Your task to perform on an android device: Find coffee shops on Maps Image 0: 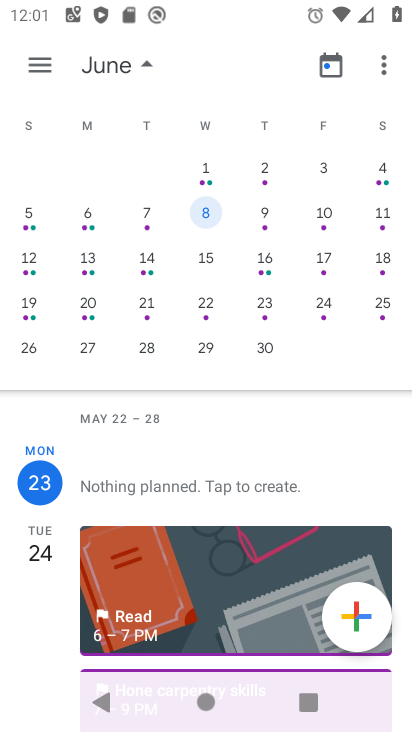
Step 0: press home button
Your task to perform on an android device: Find coffee shops on Maps Image 1: 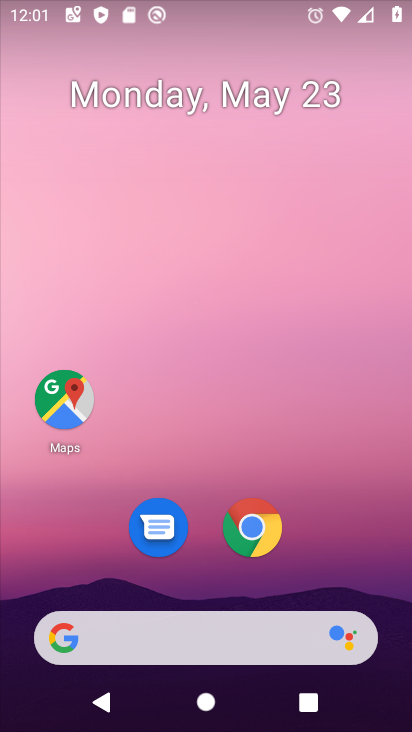
Step 1: click (233, 641)
Your task to perform on an android device: Find coffee shops on Maps Image 2: 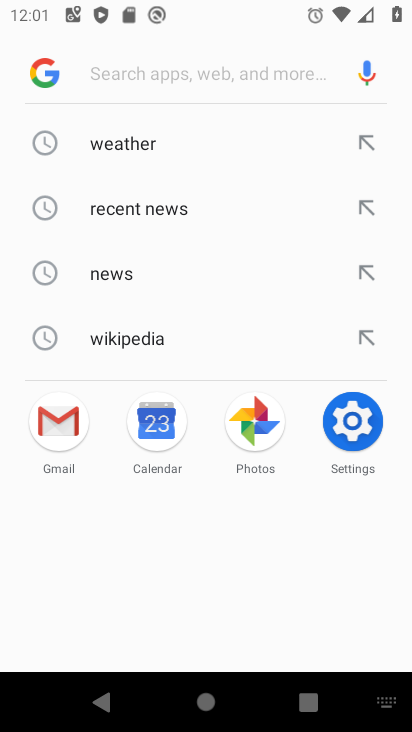
Step 2: press home button
Your task to perform on an android device: Find coffee shops on Maps Image 3: 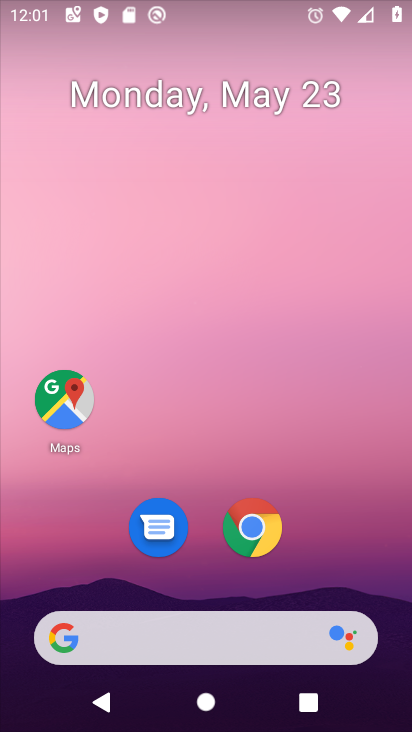
Step 3: click (64, 386)
Your task to perform on an android device: Find coffee shops on Maps Image 4: 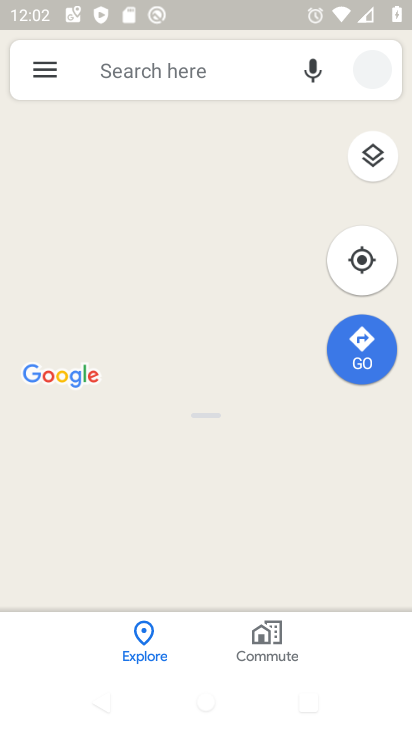
Step 4: click (248, 75)
Your task to perform on an android device: Find coffee shops on Maps Image 5: 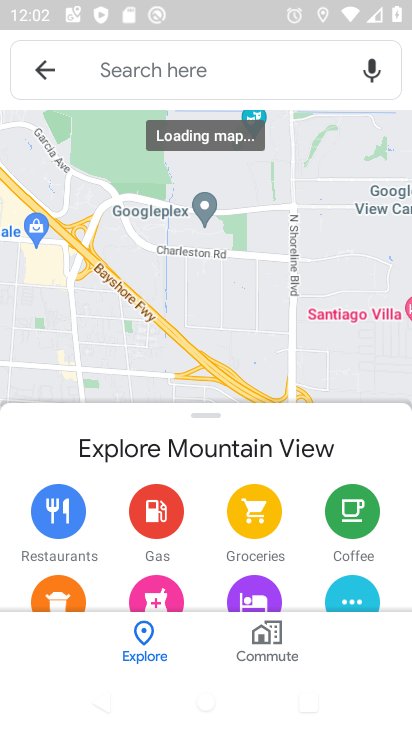
Step 5: click (188, 73)
Your task to perform on an android device: Find coffee shops on Maps Image 6: 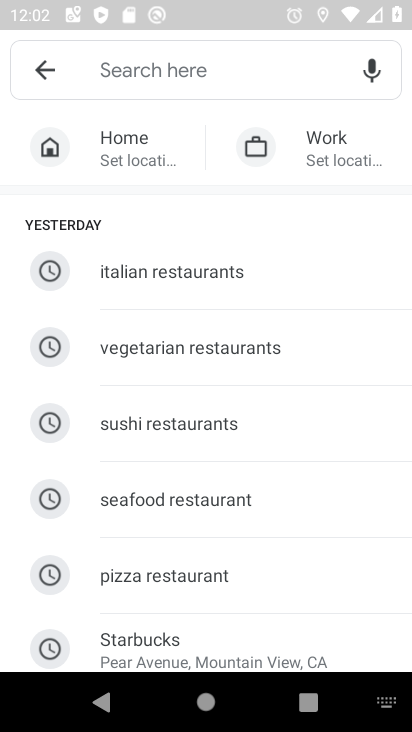
Step 6: drag from (221, 565) to (255, 302)
Your task to perform on an android device: Find coffee shops on Maps Image 7: 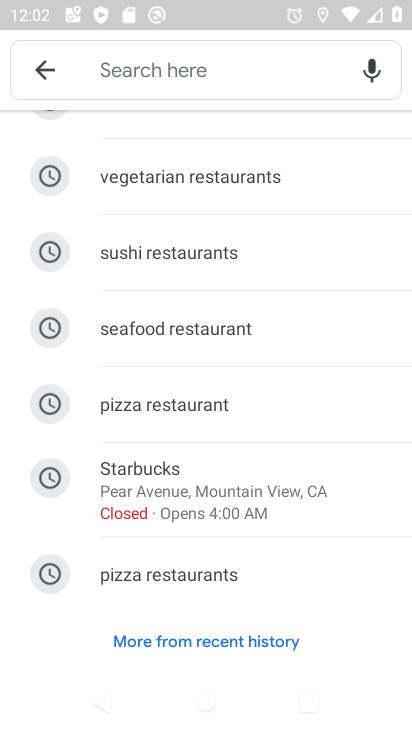
Step 7: click (252, 512)
Your task to perform on an android device: Find coffee shops on Maps Image 8: 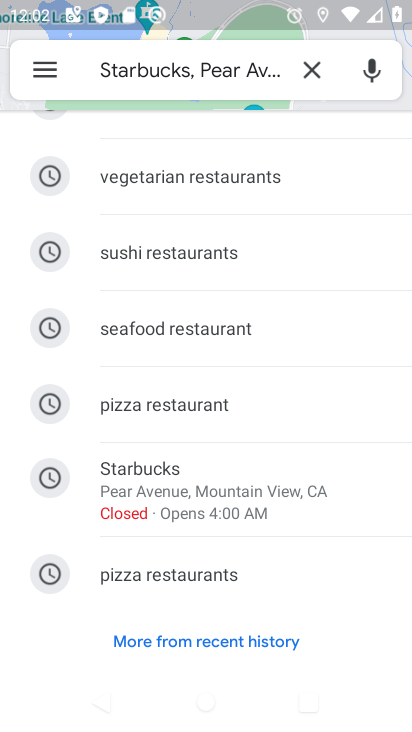
Step 8: task complete